Your task to perform on an android device: Open accessibility settings Image 0: 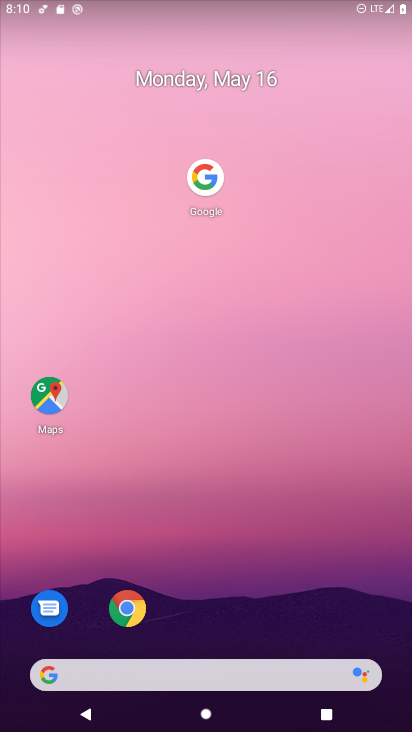
Step 0: drag from (247, 564) to (252, 50)
Your task to perform on an android device: Open accessibility settings Image 1: 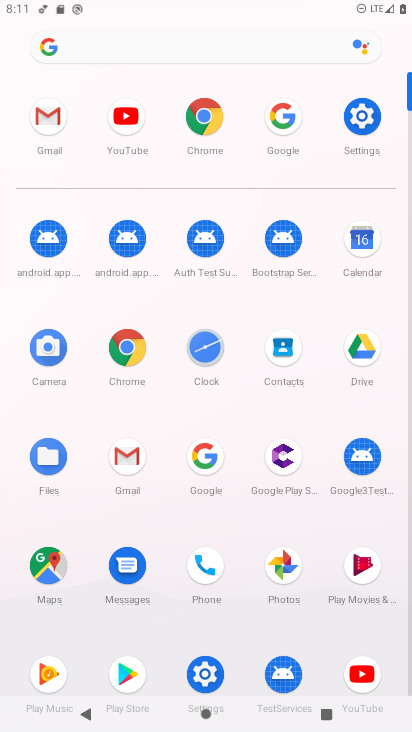
Step 1: click (360, 115)
Your task to perform on an android device: Open accessibility settings Image 2: 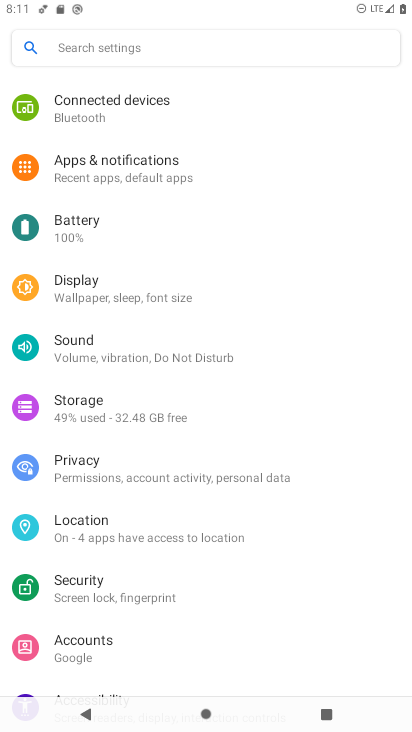
Step 2: drag from (134, 504) to (194, 413)
Your task to perform on an android device: Open accessibility settings Image 3: 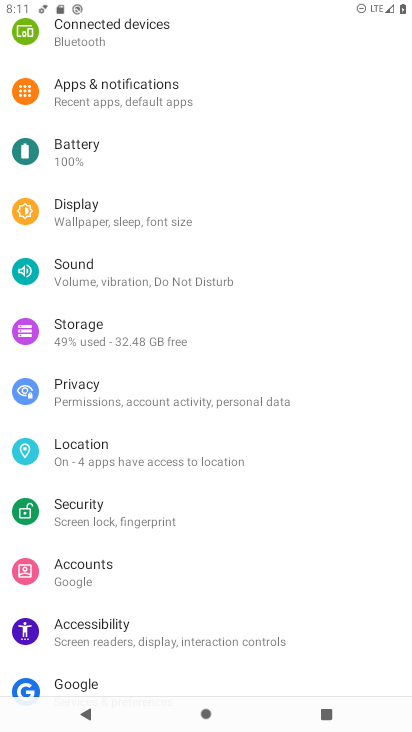
Step 3: drag from (126, 566) to (178, 486)
Your task to perform on an android device: Open accessibility settings Image 4: 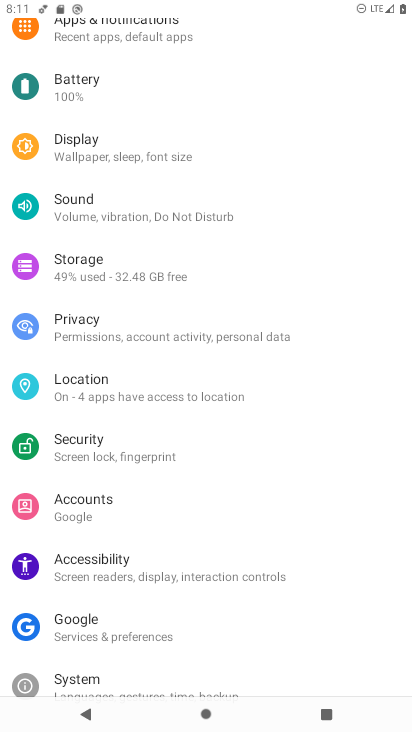
Step 4: click (104, 566)
Your task to perform on an android device: Open accessibility settings Image 5: 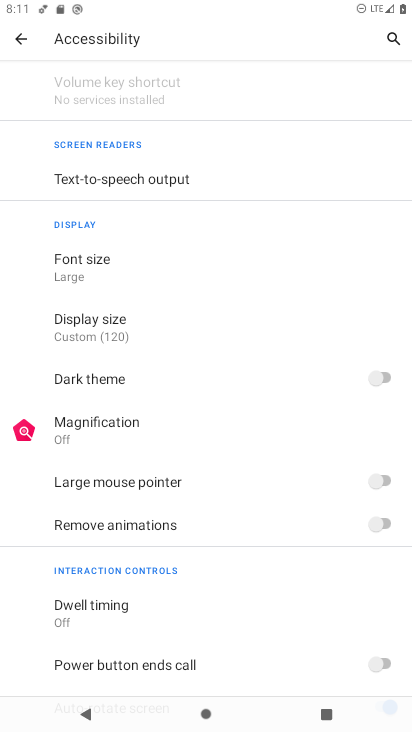
Step 5: task complete